Your task to perform on an android device: toggle javascript in the chrome app Image 0: 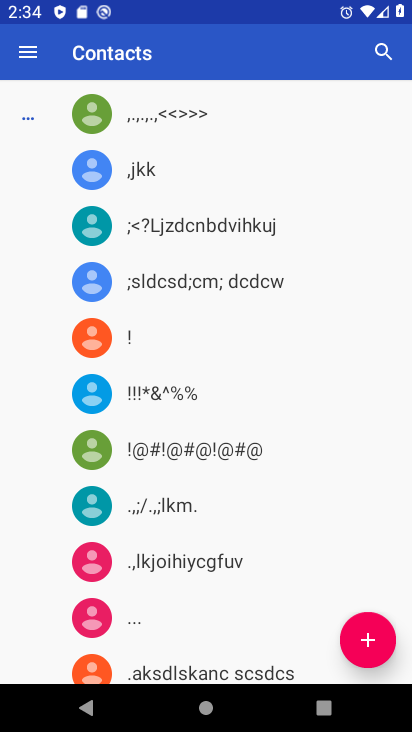
Step 0: press home button
Your task to perform on an android device: toggle javascript in the chrome app Image 1: 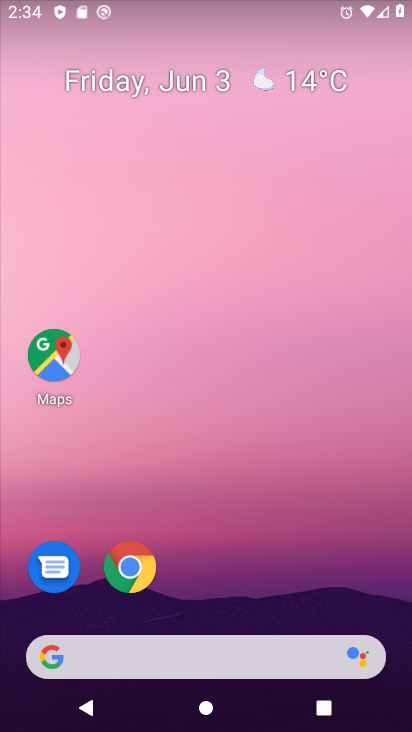
Step 1: drag from (258, 676) to (195, 225)
Your task to perform on an android device: toggle javascript in the chrome app Image 2: 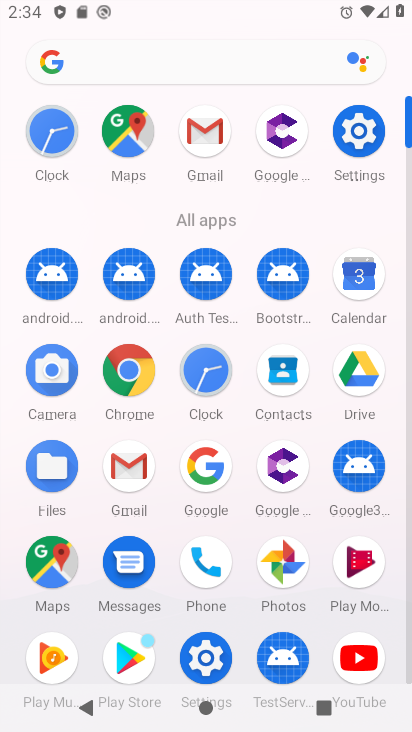
Step 2: click (125, 374)
Your task to perform on an android device: toggle javascript in the chrome app Image 3: 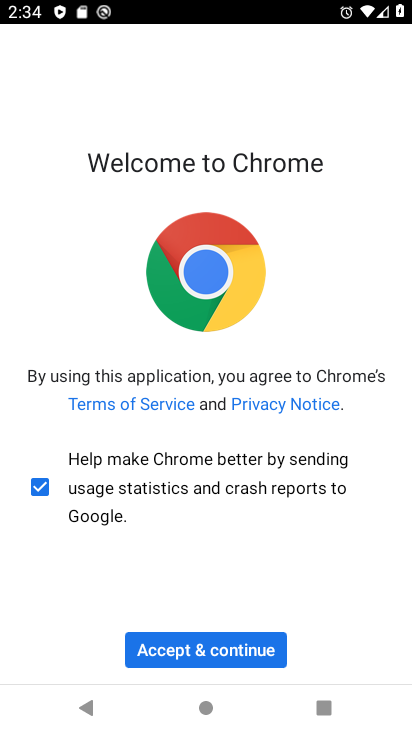
Step 3: click (229, 660)
Your task to perform on an android device: toggle javascript in the chrome app Image 4: 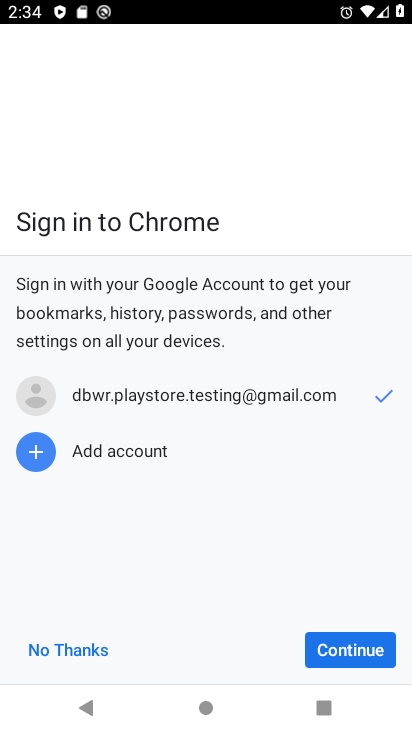
Step 4: click (321, 655)
Your task to perform on an android device: toggle javascript in the chrome app Image 5: 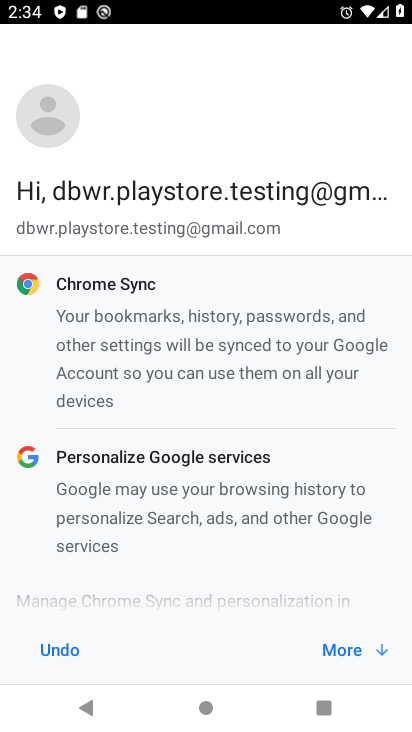
Step 5: click (379, 654)
Your task to perform on an android device: toggle javascript in the chrome app Image 6: 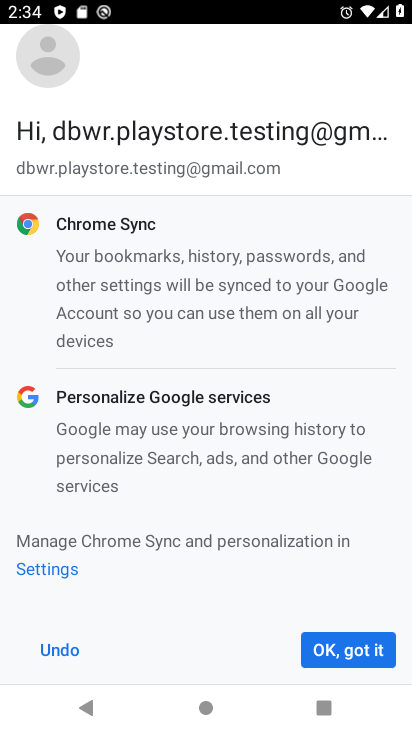
Step 6: click (379, 654)
Your task to perform on an android device: toggle javascript in the chrome app Image 7: 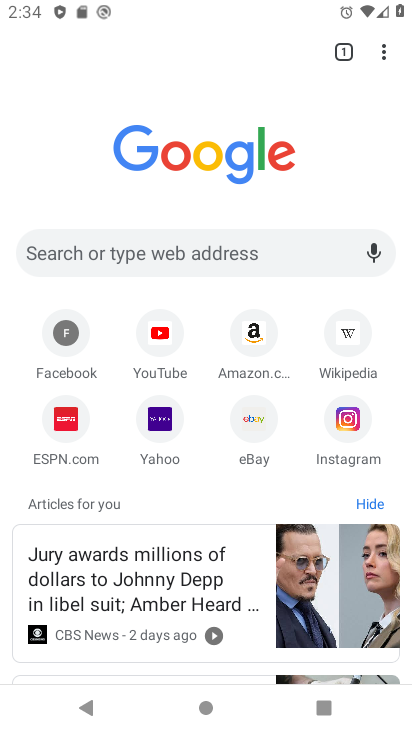
Step 7: click (375, 47)
Your task to perform on an android device: toggle javascript in the chrome app Image 8: 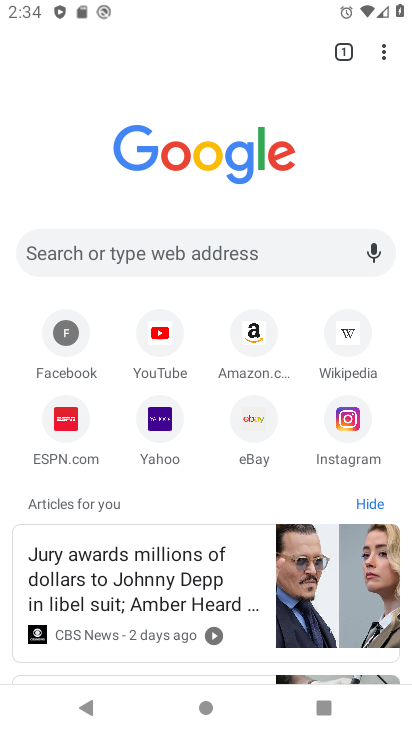
Step 8: click (379, 58)
Your task to perform on an android device: toggle javascript in the chrome app Image 9: 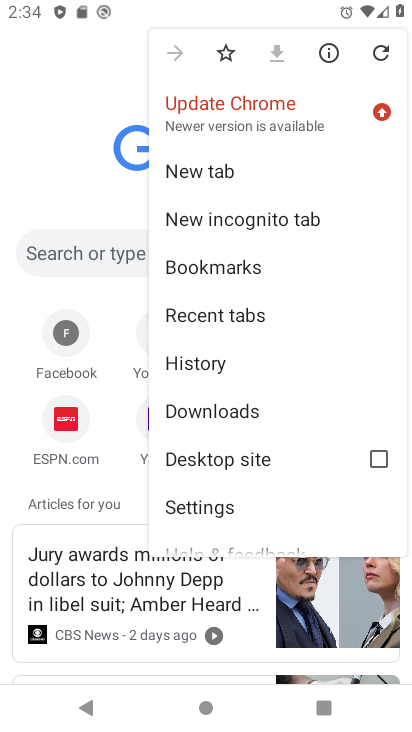
Step 9: click (219, 498)
Your task to perform on an android device: toggle javascript in the chrome app Image 10: 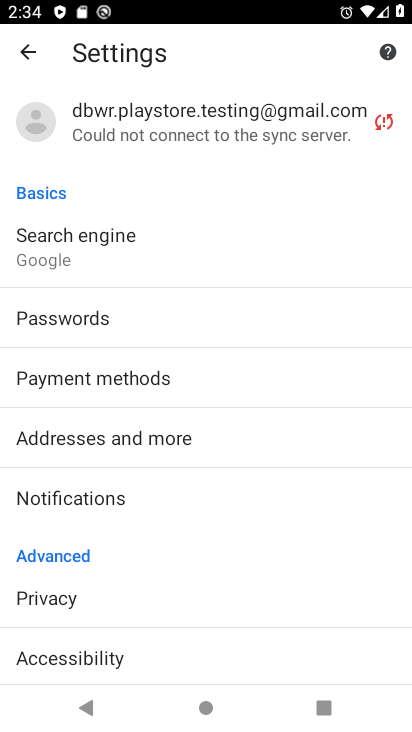
Step 10: drag from (53, 605) to (130, 338)
Your task to perform on an android device: toggle javascript in the chrome app Image 11: 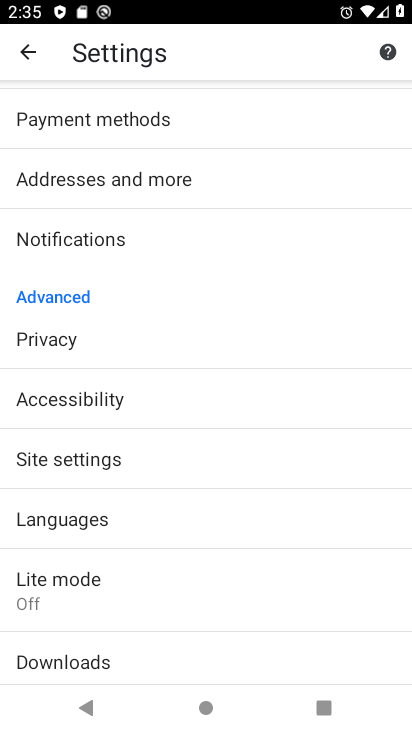
Step 11: click (84, 585)
Your task to perform on an android device: toggle javascript in the chrome app Image 12: 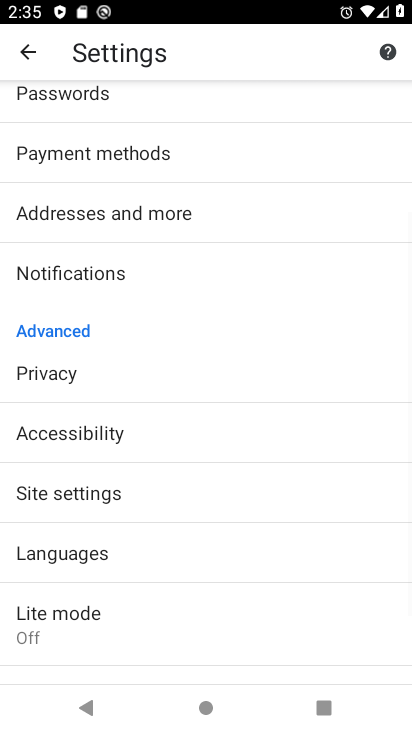
Step 12: click (69, 449)
Your task to perform on an android device: toggle javascript in the chrome app Image 13: 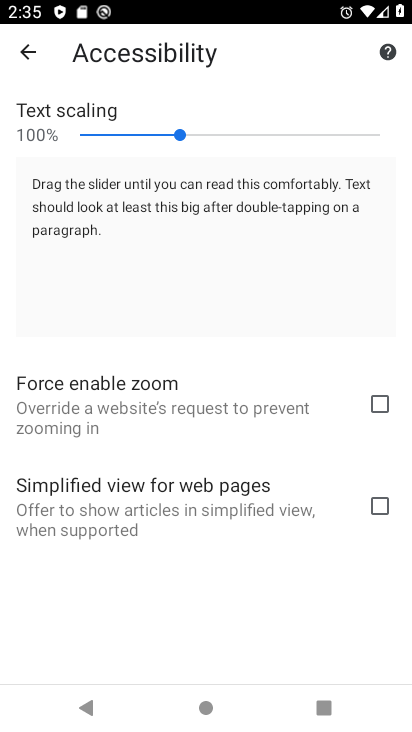
Step 13: click (20, 63)
Your task to perform on an android device: toggle javascript in the chrome app Image 14: 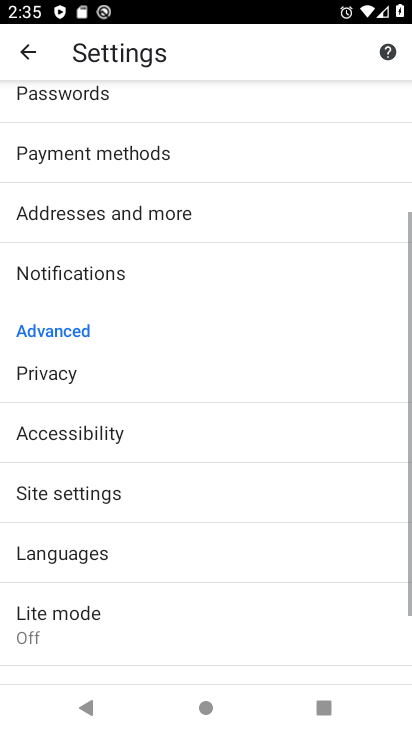
Step 14: click (75, 496)
Your task to perform on an android device: toggle javascript in the chrome app Image 15: 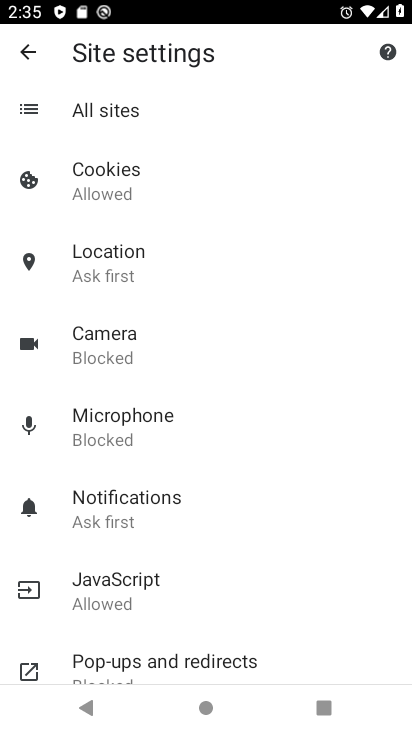
Step 15: click (145, 556)
Your task to perform on an android device: toggle javascript in the chrome app Image 16: 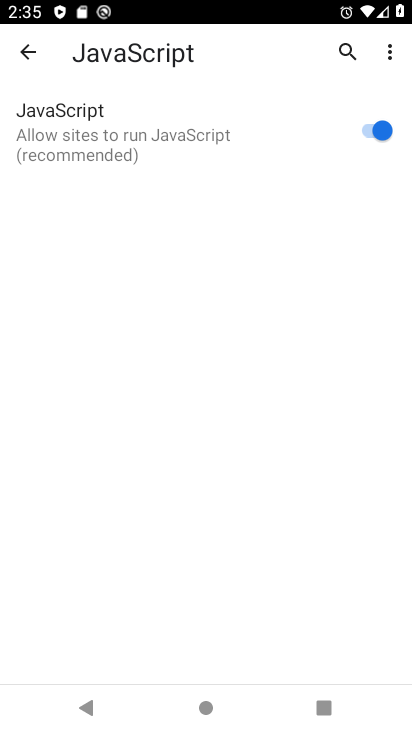
Step 16: task complete